Your task to perform on an android device: turn on notifications settings in the gmail app Image 0: 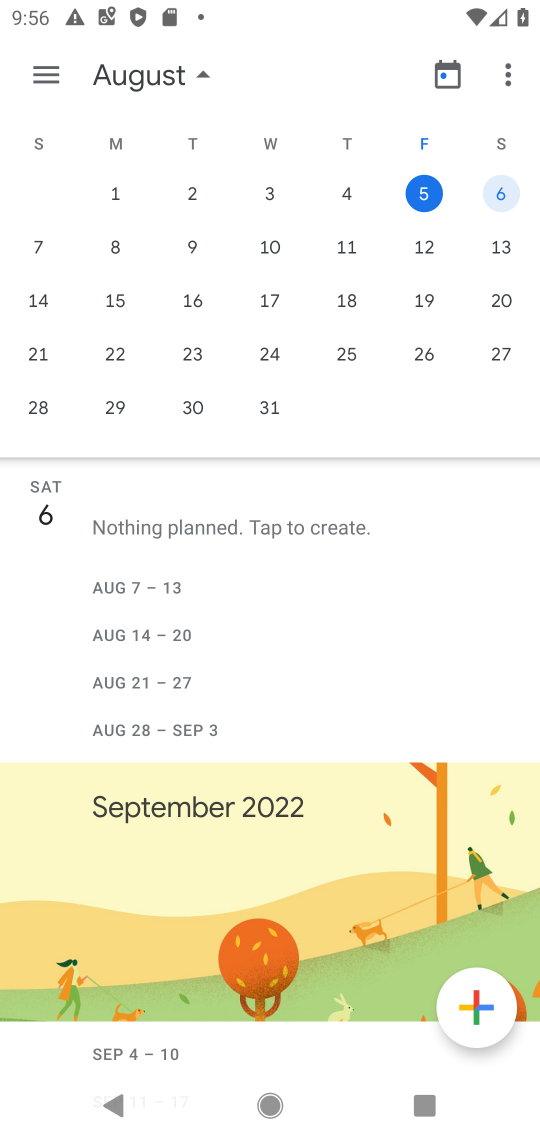
Step 0: press home button
Your task to perform on an android device: turn on notifications settings in the gmail app Image 1: 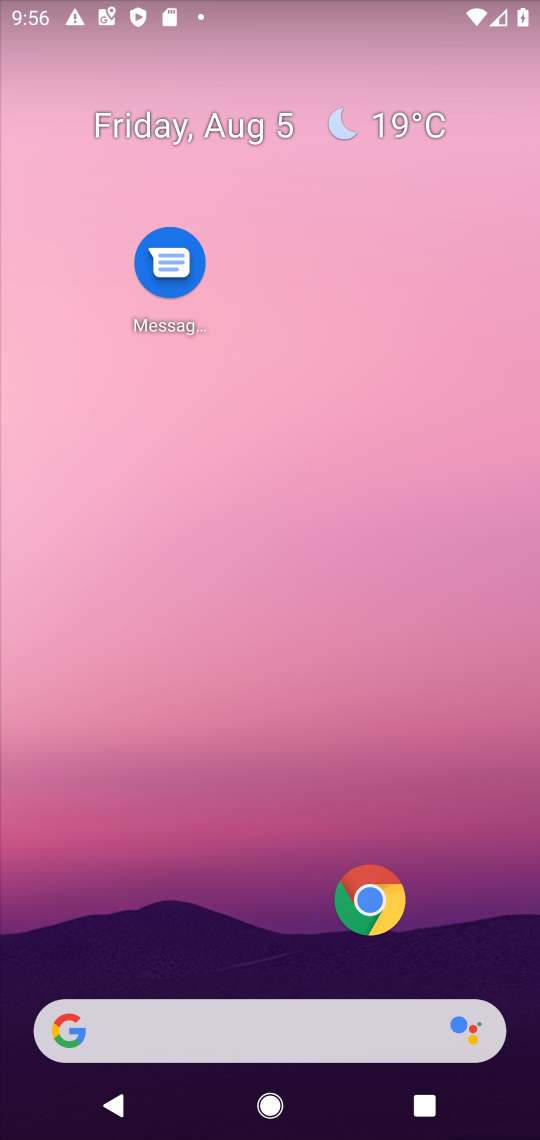
Step 1: drag from (227, 920) to (263, 96)
Your task to perform on an android device: turn on notifications settings in the gmail app Image 2: 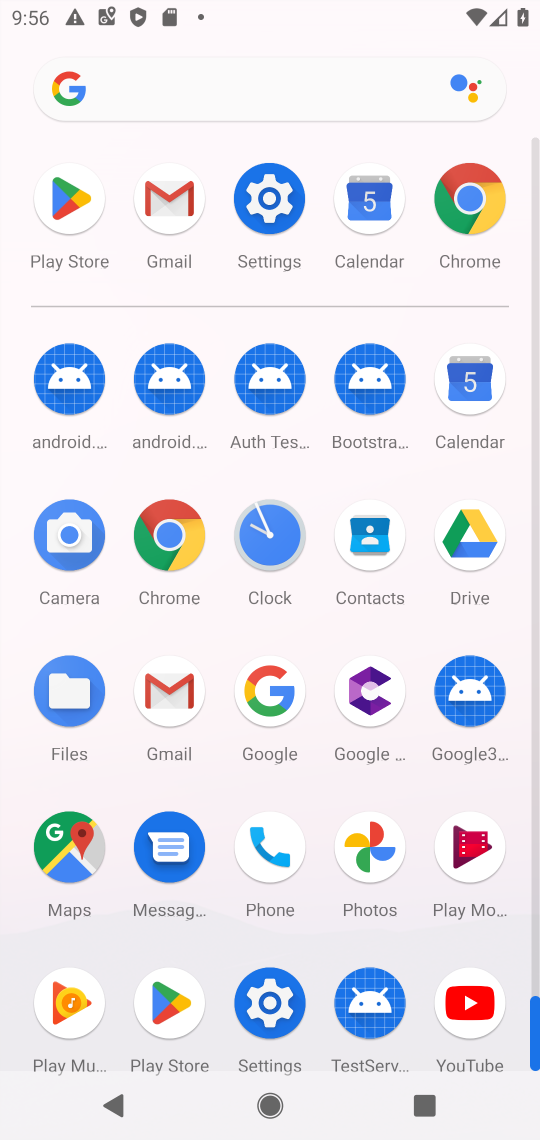
Step 2: click (179, 693)
Your task to perform on an android device: turn on notifications settings in the gmail app Image 3: 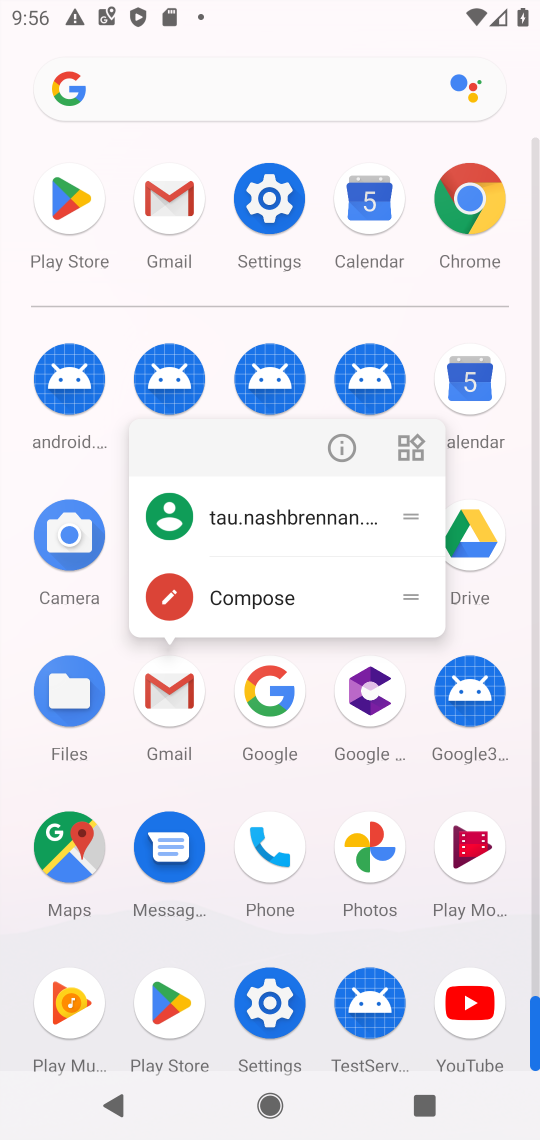
Step 3: click (344, 444)
Your task to perform on an android device: turn on notifications settings in the gmail app Image 4: 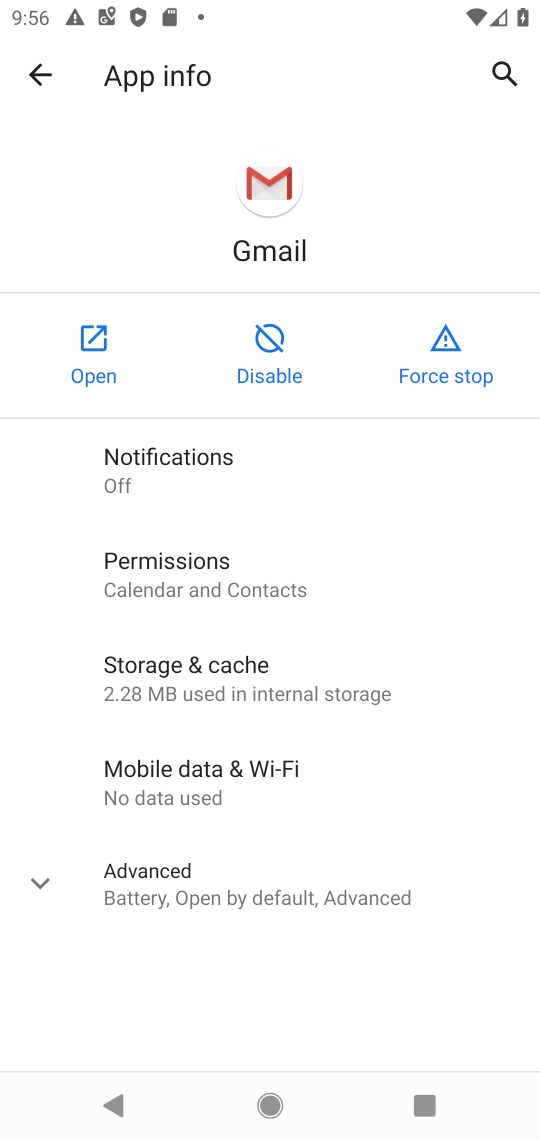
Step 4: click (159, 474)
Your task to perform on an android device: turn on notifications settings in the gmail app Image 5: 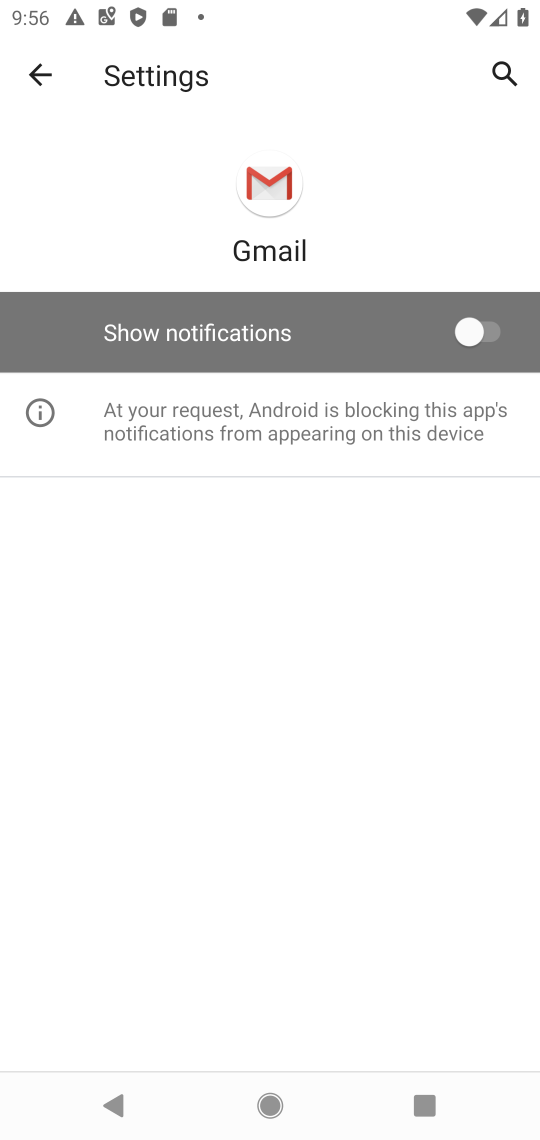
Step 5: click (428, 339)
Your task to perform on an android device: turn on notifications settings in the gmail app Image 6: 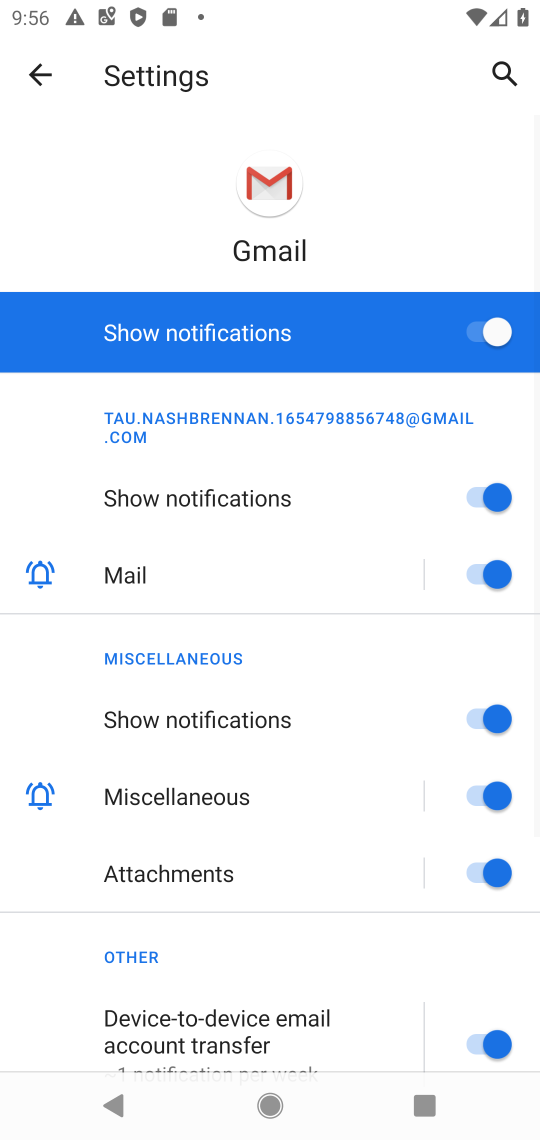
Step 6: task complete